Your task to perform on an android device: open app "Google Duo" Image 0: 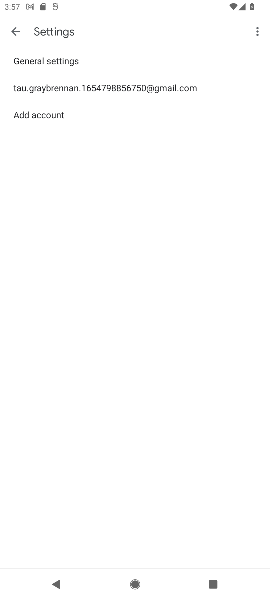
Step 0: press home button
Your task to perform on an android device: open app "Google Duo" Image 1: 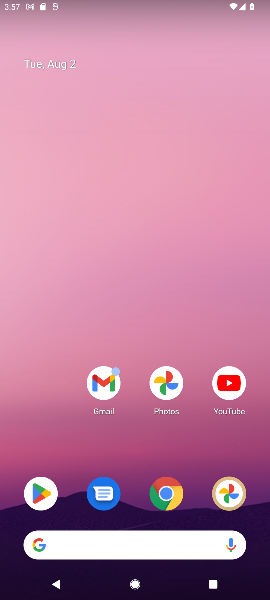
Step 1: click (40, 491)
Your task to perform on an android device: open app "Google Duo" Image 2: 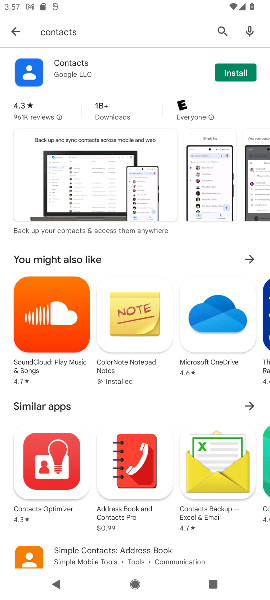
Step 2: click (14, 26)
Your task to perform on an android device: open app "Google Duo" Image 3: 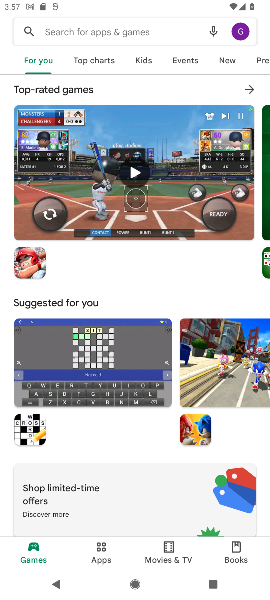
Step 3: click (75, 26)
Your task to perform on an android device: open app "Google Duo" Image 4: 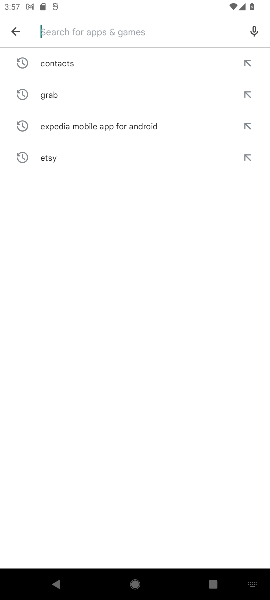
Step 4: type "google duo"
Your task to perform on an android device: open app "Google Duo" Image 5: 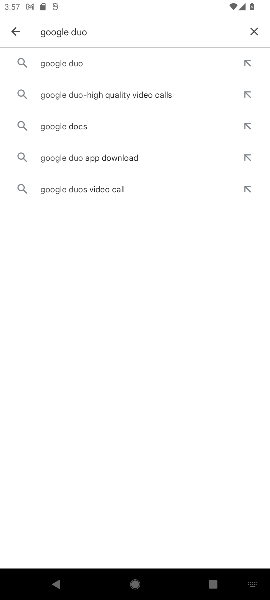
Step 5: click (80, 59)
Your task to perform on an android device: open app "Google Duo" Image 6: 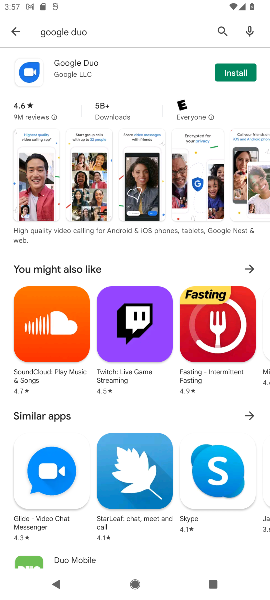
Step 6: task complete